Your task to perform on an android device: open app "Google Chat" (install if not already installed) Image 0: 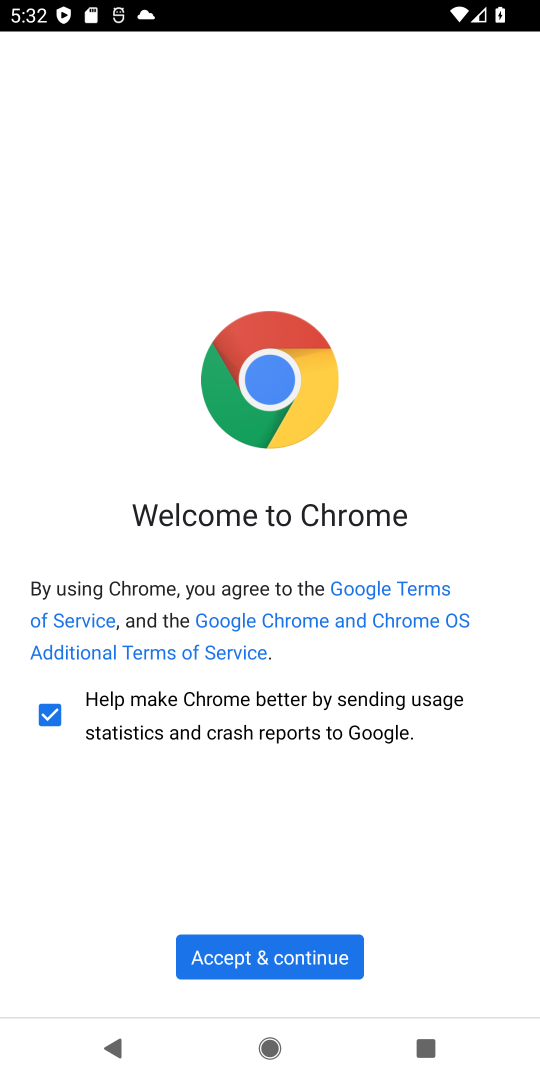
Step 0: press home button
Your task to perform on an android device: open app "Google Chat" (install if not already installed) Image 1: 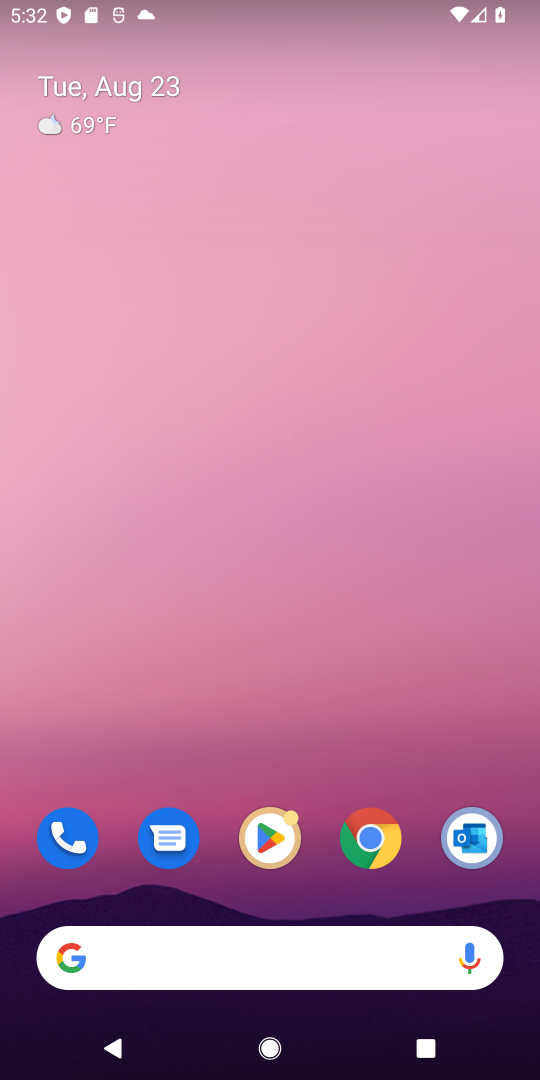
Step 1: drag from (294, 919) to (303, 84)
Your task to perform on an android device: open app "Google Chat" (install if not already installed) Image 2: 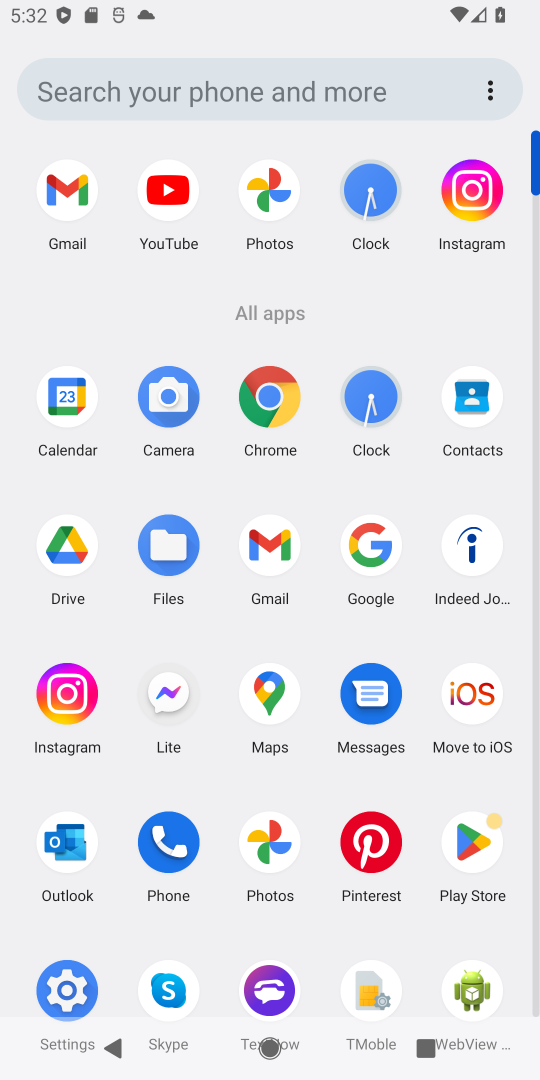
Step 2: click (471, 844)
Your task to perform on an android device: open app "Google Chat" (install if not already installed) Image 3: 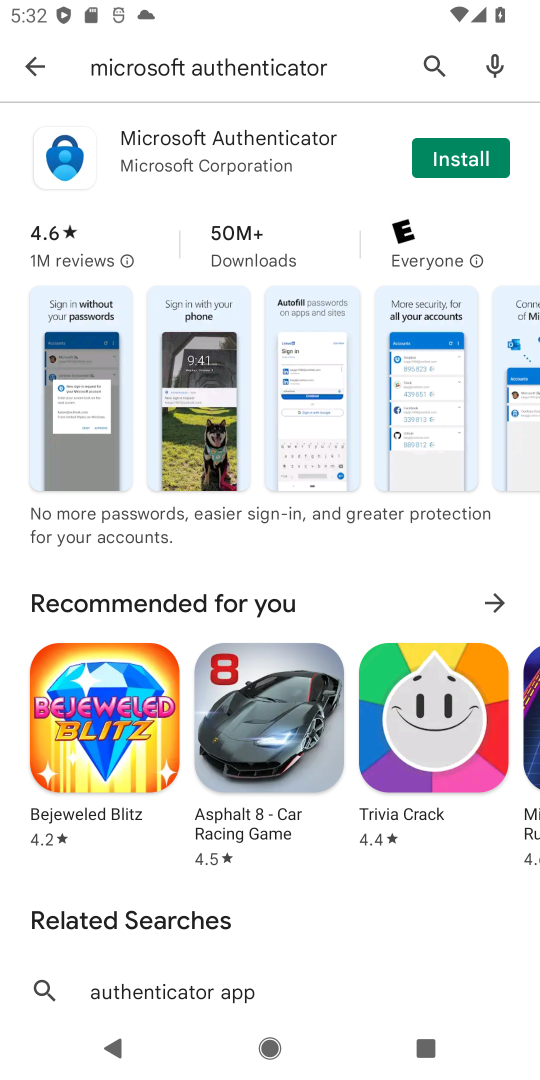
Step 3: click (433, 68)
Your task to perform on an android device: open app "Google Chat" (install if not already installed) Image 4: 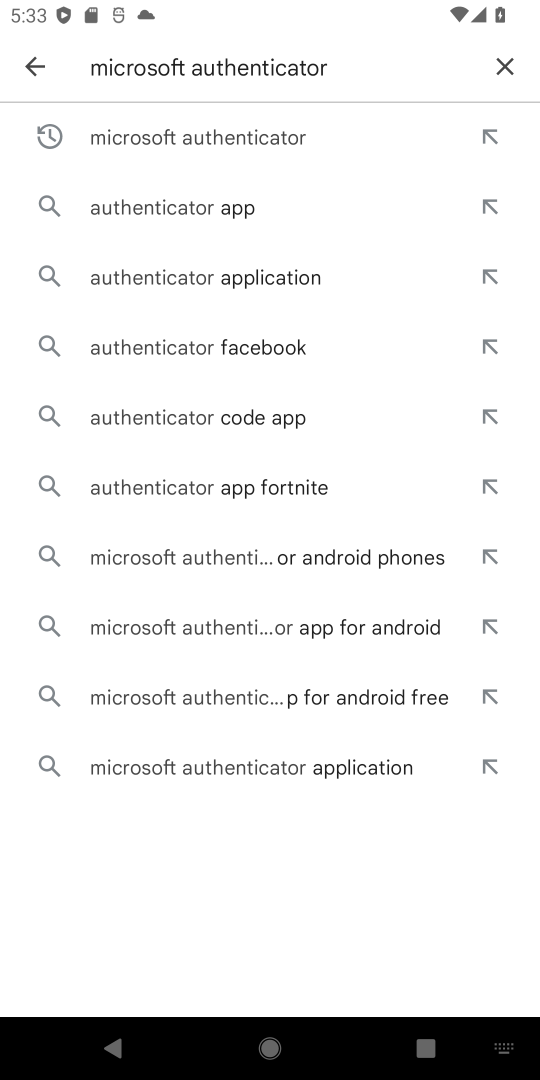
Step 4: click (502, 59)
Your task to perform on an android device: open app "Google Chat" (install if not already installed) Image 5: 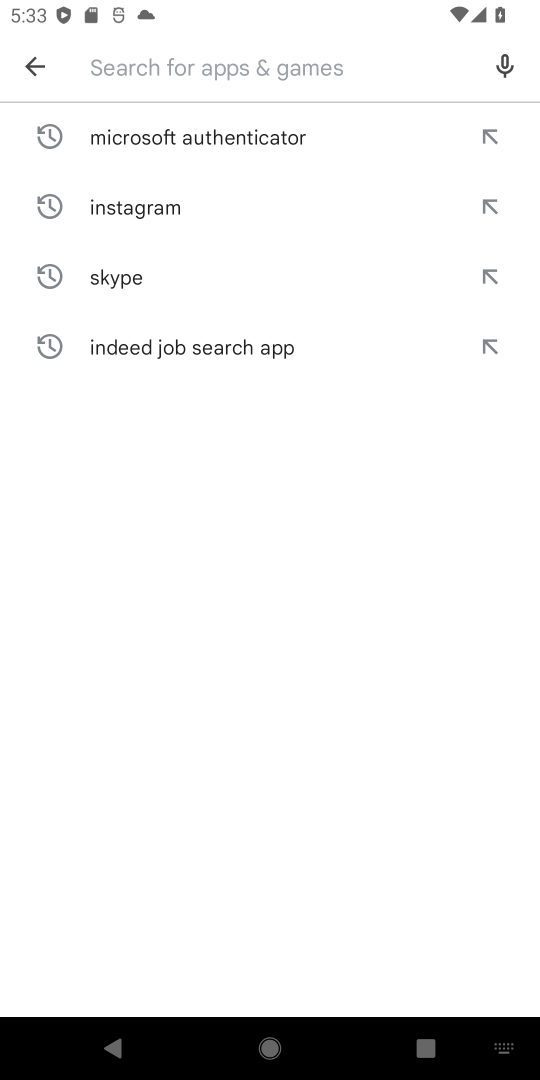
Step 5: type "Google Chat"
Your task to perform on an android device: open app "Google Chat" (install if not already installed) Image 6: 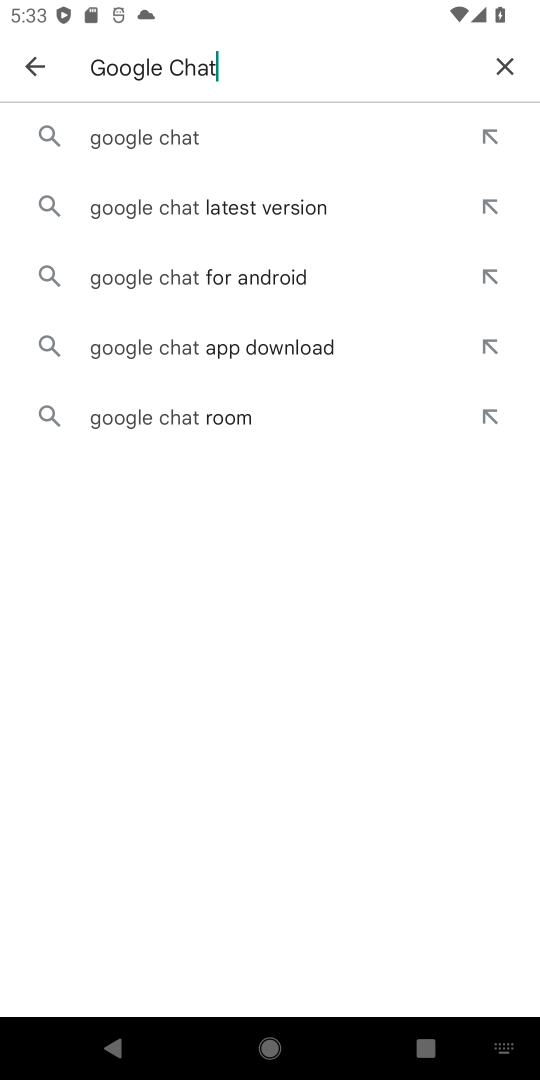
Step 6: click (109, 138)
Your task to perform on an android device: open app "Google Chat" (install if not already installed) Image 7: 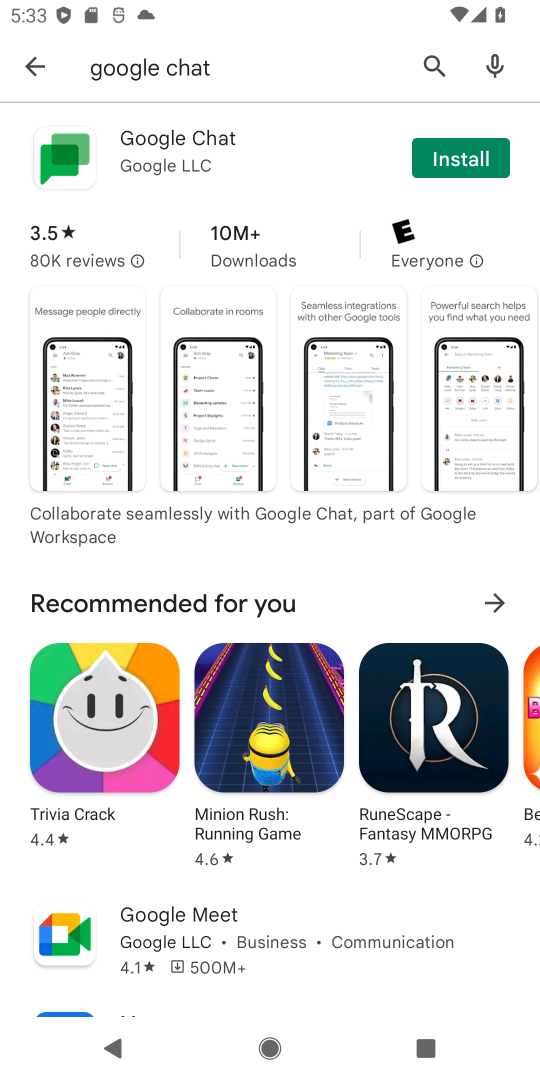
Step 7: click (433, 153)
Your task to perform on an android device: open app "Google Chat" (install if not already installed) Image 8: 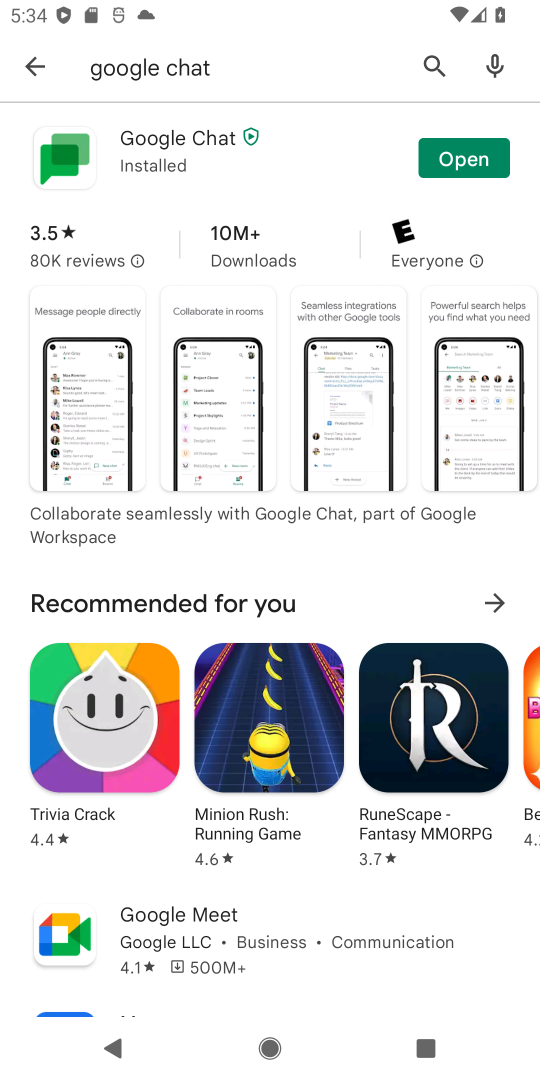
Step 8: click (462, 160)
Your task to perform on an android device: open app "Google Chat" (install if not already installed) Image 9: 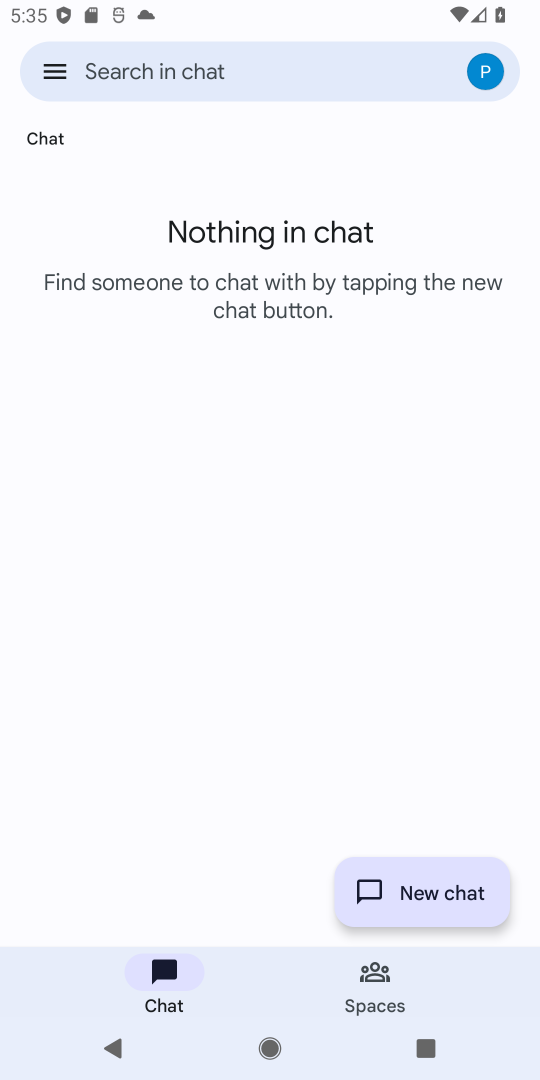
Step 9: task complete